Your task to perform on an android device: Search for Italian restaurants on Maps Image 0: 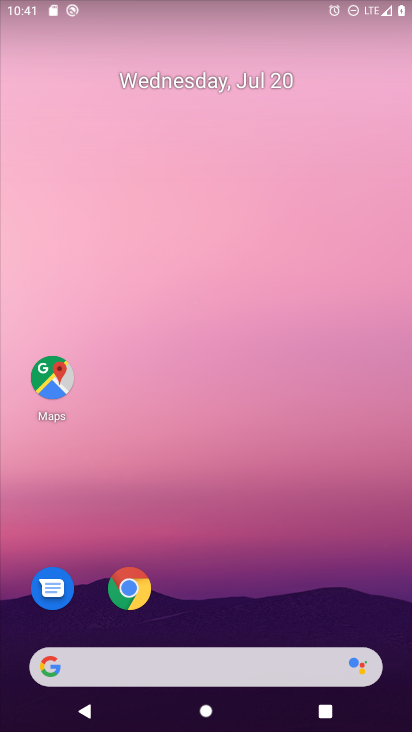
Step 0: click (27, 383)
Your task to perform on an android device: Search for Italian restaurants on Maps Image 1: 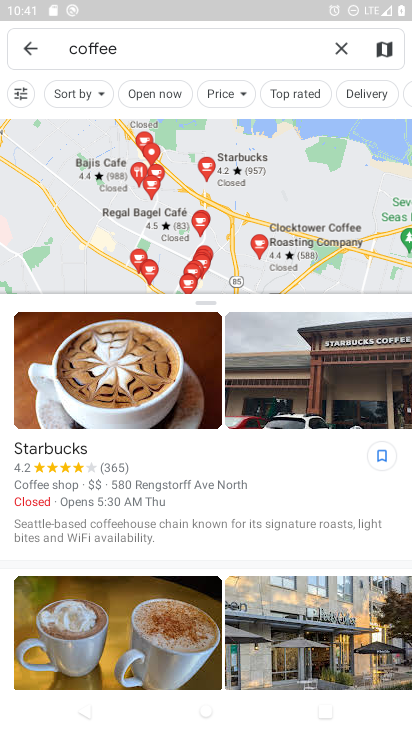
Step 1: click (339, 36)
Your task to perform on an android device: Search for Italian restaurants on Maps Image 2: 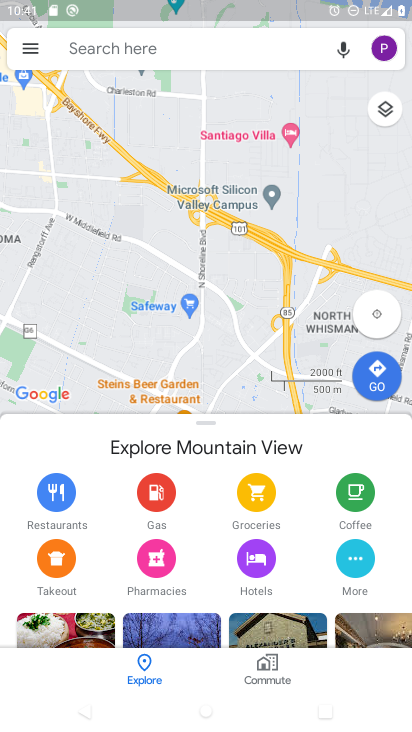
Step 2: click (196, 43)
Your task to perform on an android device: Search for Italian restaurants on Maps Image 3: 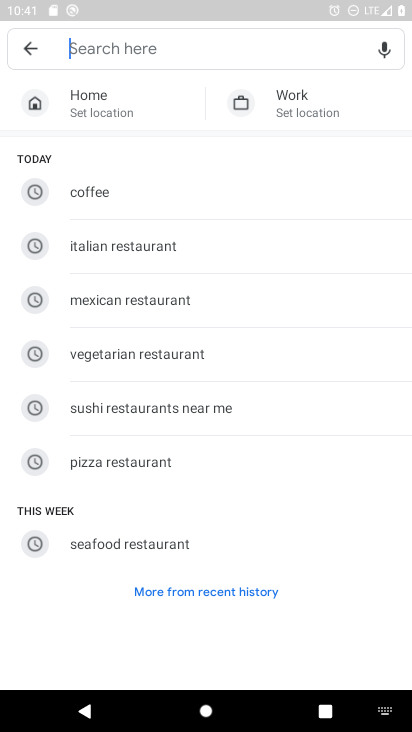
Step 3: click (93, 256)
Your task to perform on an android device: Search for Italian restaurants on Maps Image 4: 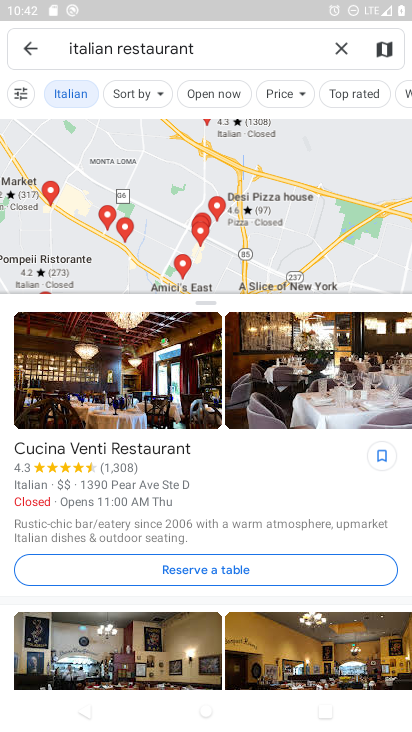
Step 4: task complete